Your task to perform on an android device: Search for Mexican restaurants on Maps Image 0: 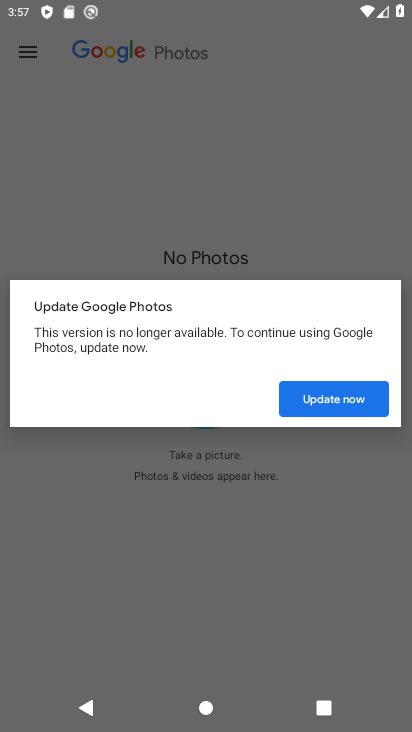
Step 0: press home button
Your task to perform on an android device: Search for Mexican restaurants on Maps Image 1: 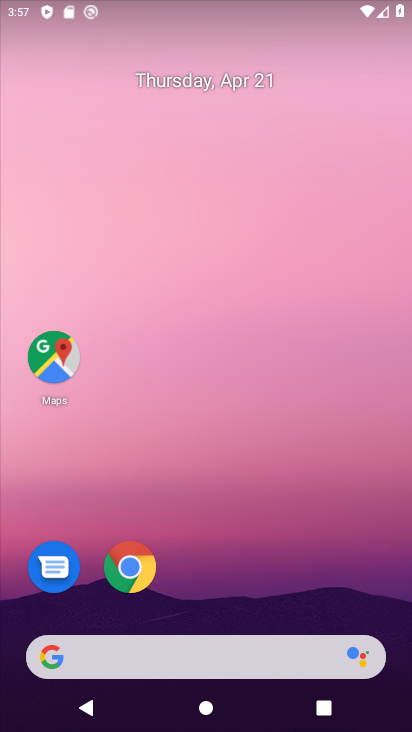
Step 1: drag from (167, 614) to (154, 84)
Your task to perform on an android device: Search for Mexican restaurants on Maps Image 2: 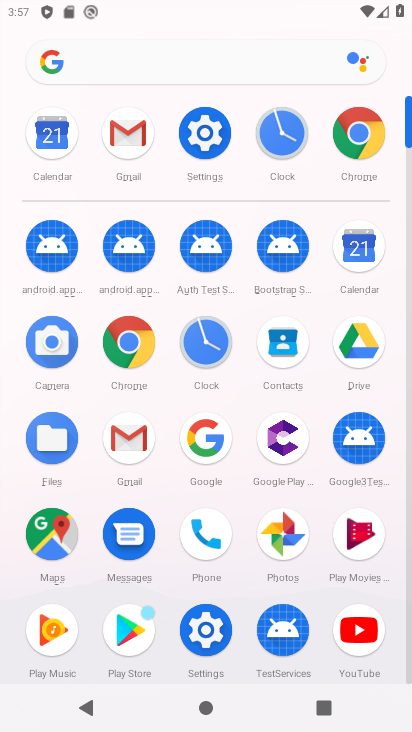
Step 2: click (52, 521)
Your task to perform on an android device: Search for Mexican restaurants on Maps Image 3: 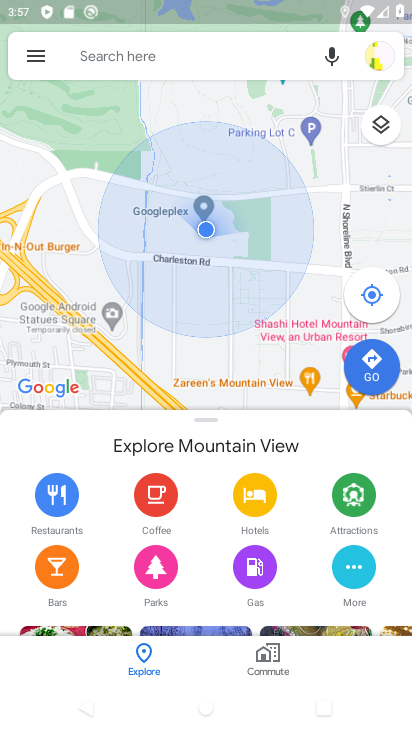
Step 3: click (195, 59)
Your task to perform on an android device: Search for Mexican restaurants on Maps Image 4: 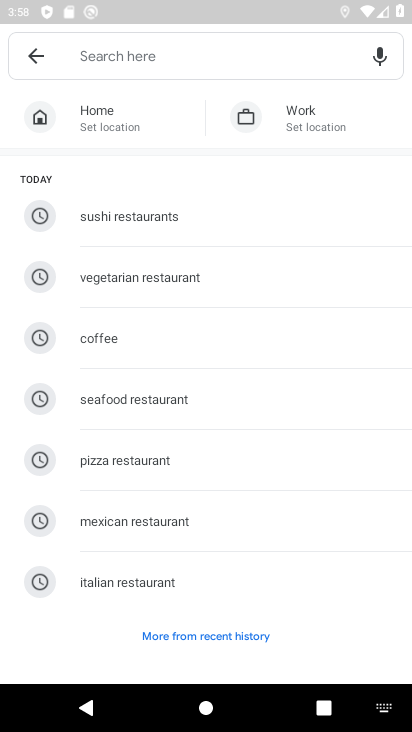
Step 4: click (129, 533)
Your task to perform on an android device: Search for Mexican restaurants on Maps Image 5: 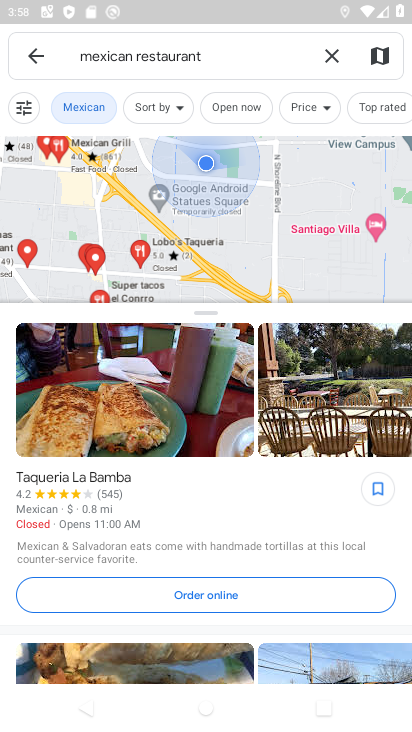
Step 5: task complete